Your task to perform on an android device: What's the weather? Image 0: 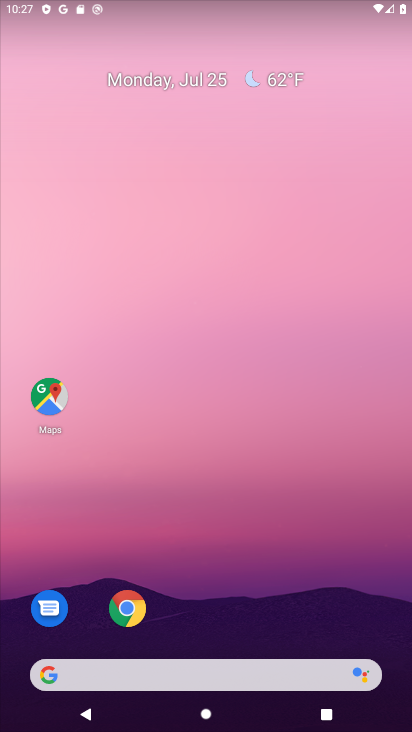
Step 0: click (201, 668)
Your task to perform on an android device: What's the weather? Image 1: 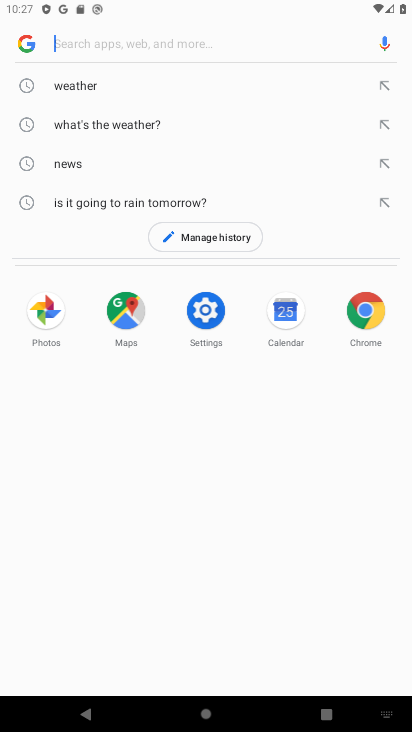
Step 1: type "What's the weather?"
Your task to perform on an android device: What's the weather? Image 2: 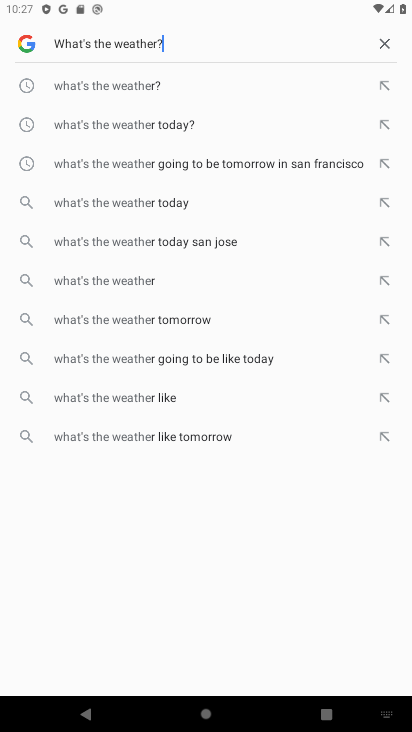
Step 2: task complete